Your task to perform on an android device: add a contact in the contacts app Image 0: 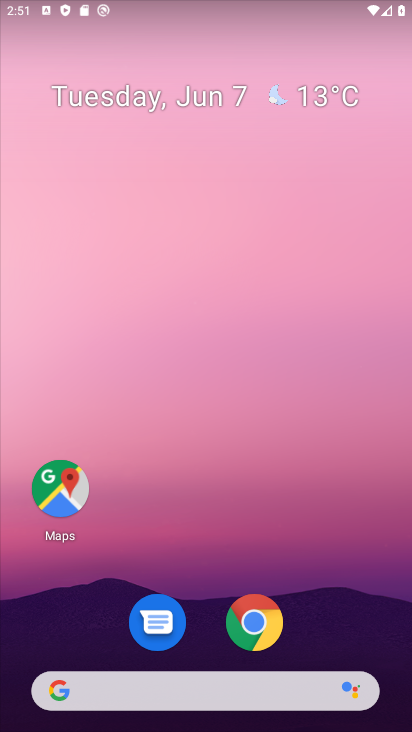
Step 0: drag from (326, 582) to (368, 10)
Your task to perform on an android device: add a contact in the contacts app Image 1: 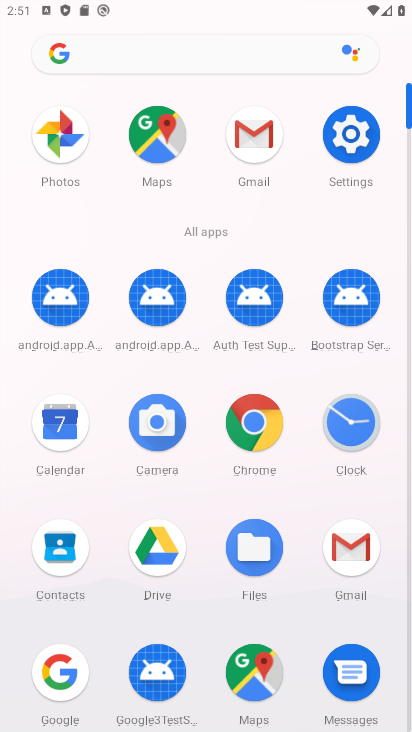
Step 1: click (58, 554)
Your task to perform on an android device: add a contact in the contacts app Image 2: 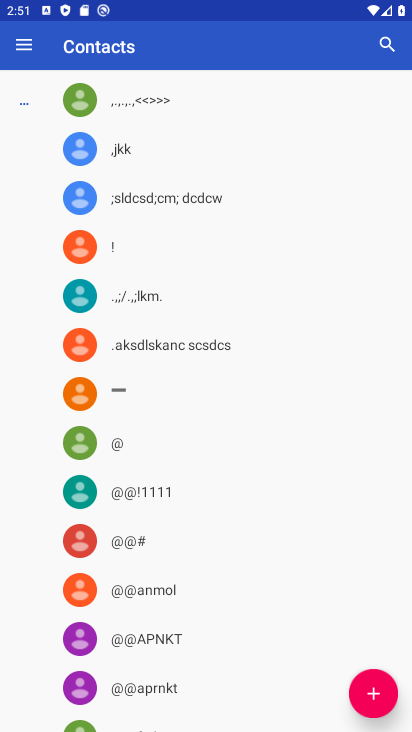
Step 2: click (368, 702)
Your task to perform on an android device: add a contact in the contacts app Image 3: 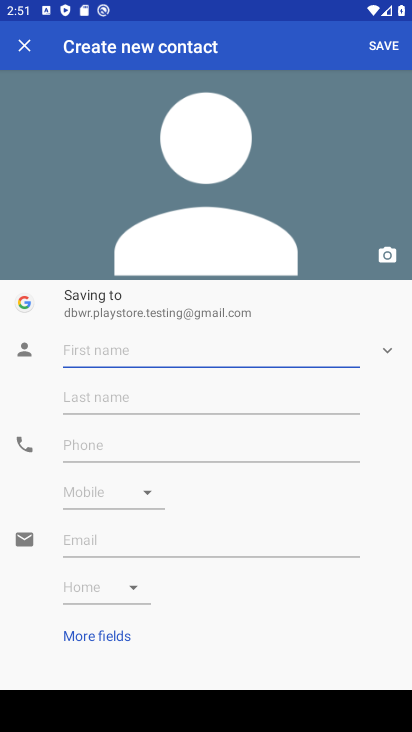
Step 3: type "dgrg"
Your task to perform on an android device: add a contact in the contacts app Image 4: 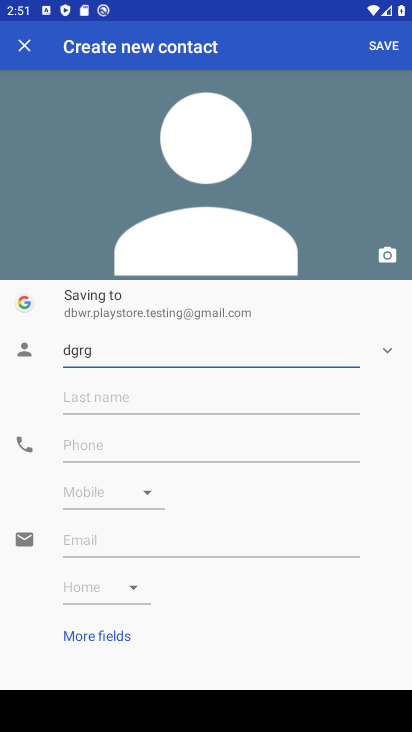
Step 4: click (87, 440)
Your task to perform on an android device: add a contact in the contacts app Image 5: 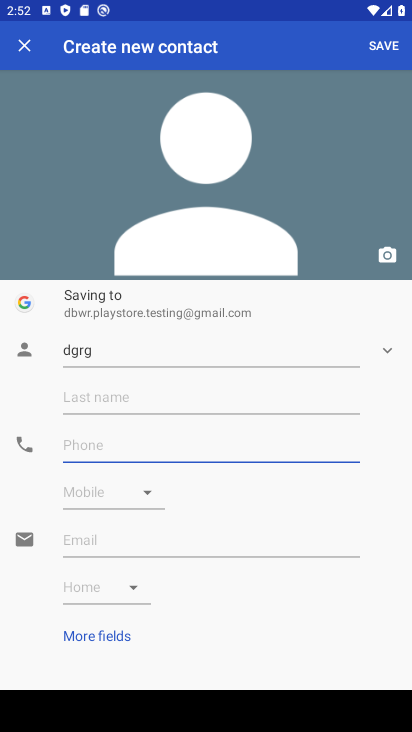
Step 5: type "66089013546"
Your task to perform on an android device: add a contact in the contacts app Image 6: 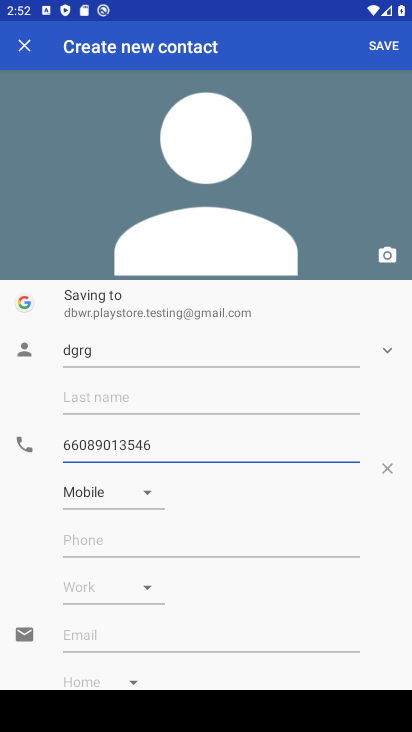
Step 6: click (380, 42)
Your task to perform on an android device: add a contact in the contacts app Image 7: 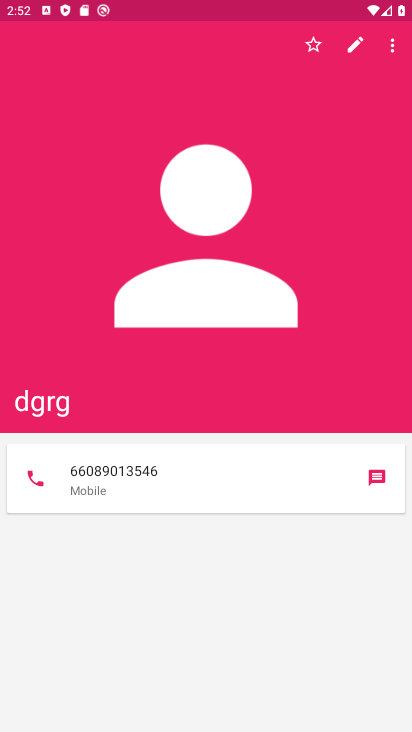
Step 7: task complete